Your task to perform on an android device: Open network settings Image 0: 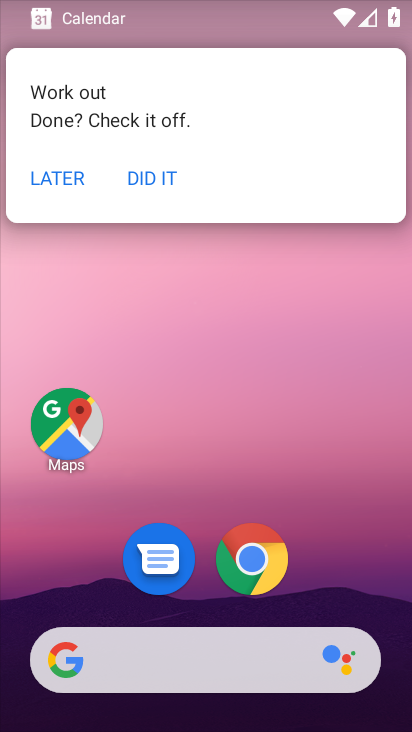
Step 0: drag from (387, 589) to (411, 173)
Your task to perform on an android device: Open network settings Image 1: 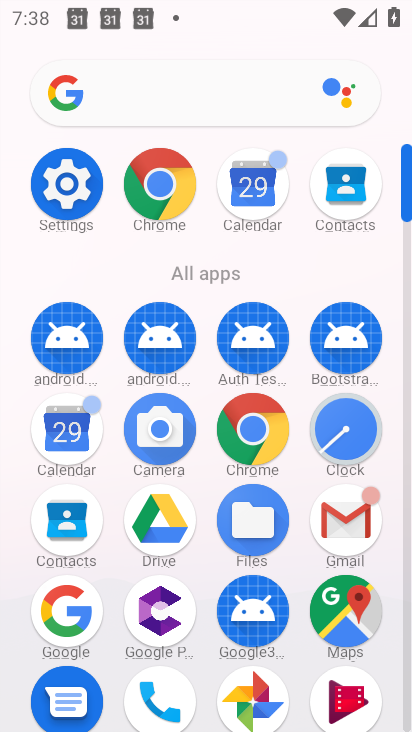
Step 1: click (53, 194)
Your task to perform on an android device: Open network settings Image 2: 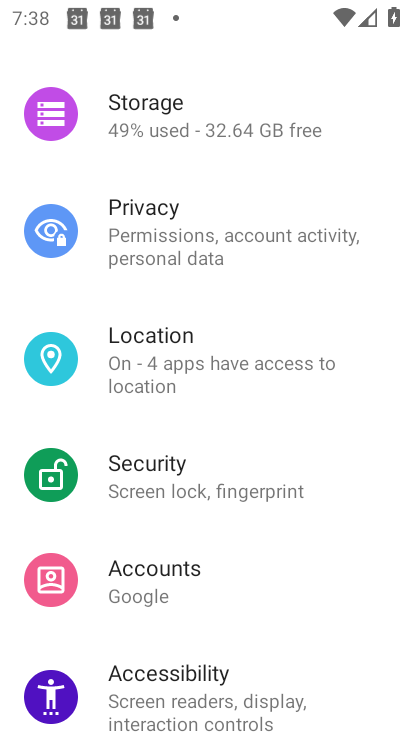
Step 2: drag from (289, 583) to (282, 458)
Your task to perform on an android device: Open network settings Image 3: 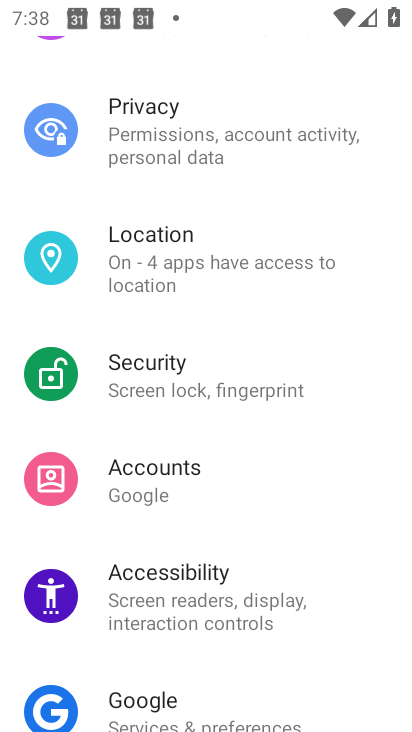
Step 3: drag from (343, 623) to (350, 455)
Your task to perform on an android device: Open network settings Image 4: 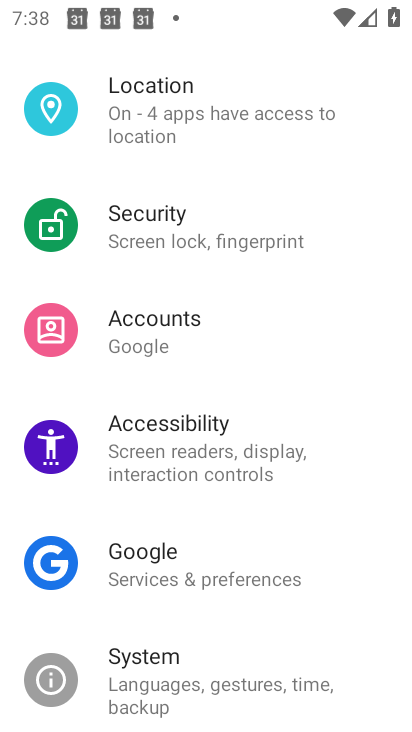
Step 4: drag from (340, 366) to (344, 460)
Your task to perform on an android device: Open network settings Image 5: 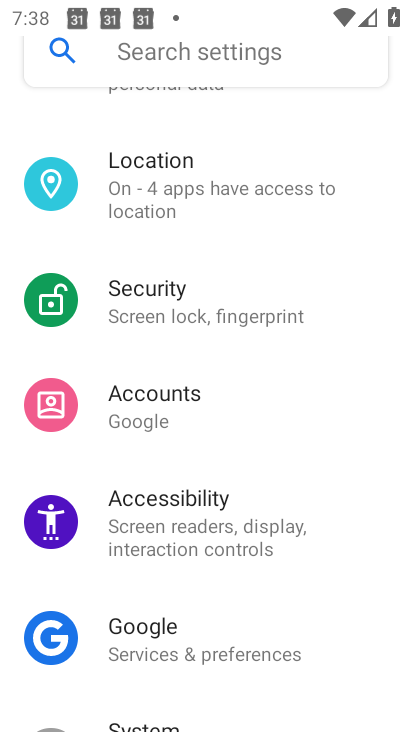
Step 5: drag from (351, 328) to (344, 419)
Your task to perform on an android device: Open network settings Image 6: 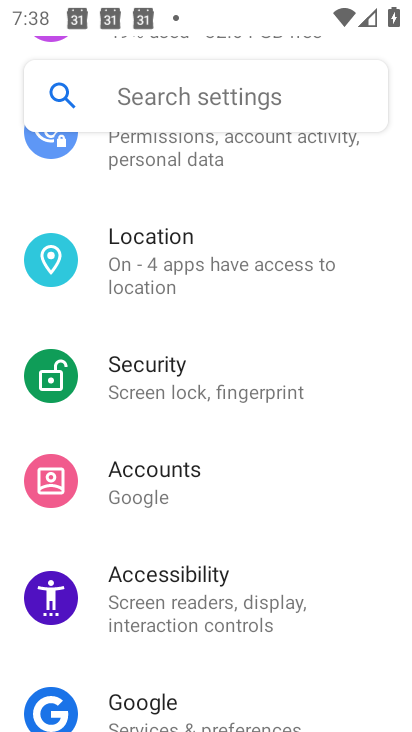
Step 6: drag from (346, 308) to (336, 426)
Your task to perform on an android device: Open network settings Image 7: 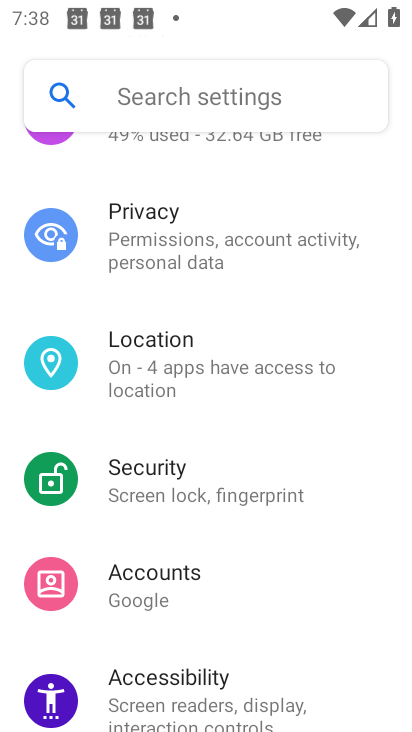
Step 7: drag from (356, 300) to (357, 412)
Your task to perform on an android device: Open network settings Image 8: 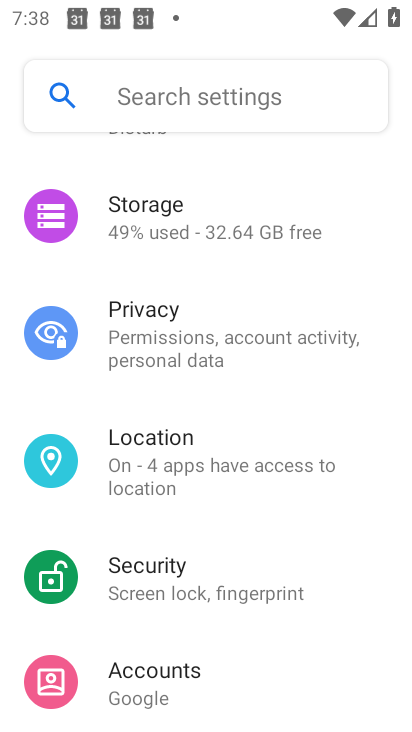
Step 8: drag from (379, 273) to (365, 387)
Your task to perform on an android device: Open network settings Image 9: 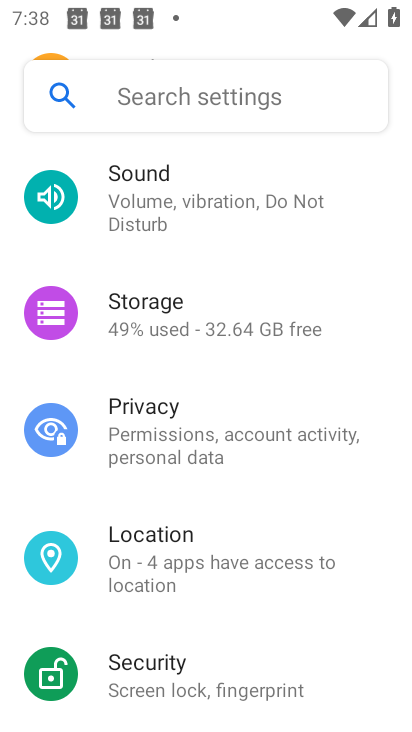
Step 9: drag from (374, 265) to (370, 387)
Your task to perform on an android device: Open network settings Image 10: 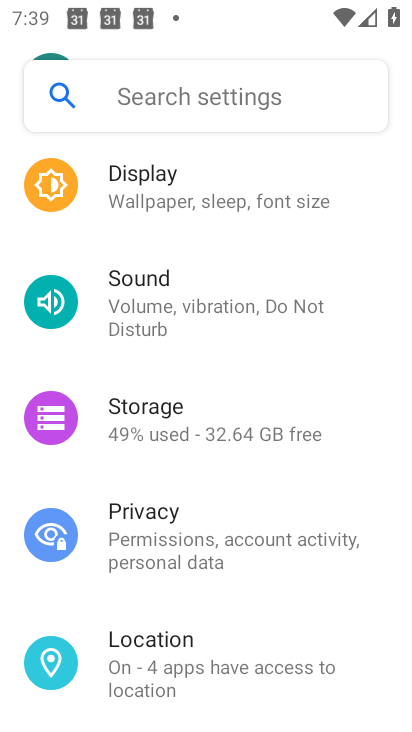
Step 10: drag from (361, 271) to (366, 379)
Your task to perform on an android device: Open network settings Image 11: 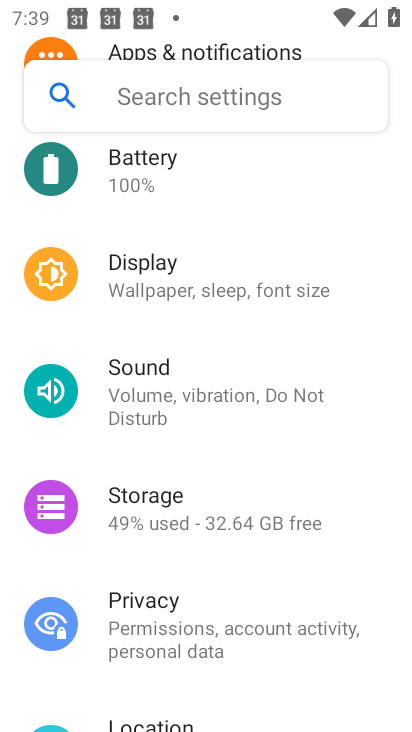
Step 11: drag from (370, 325) to (369, 412)
Your task to perform on an android device: Open network settings Image 12: 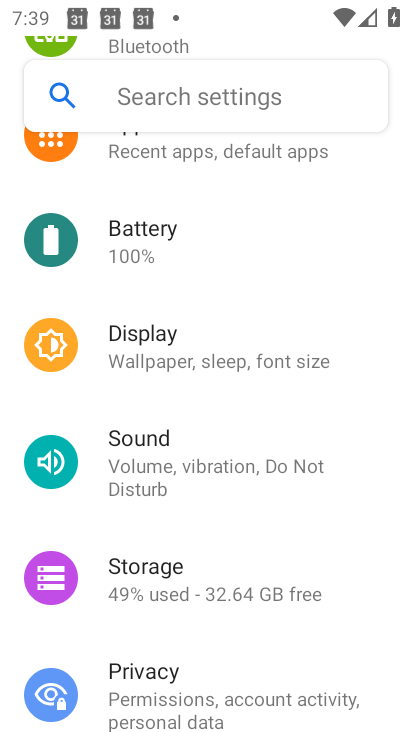
Step 12: drag from (377, 277) to (378, 430)
Your task to perform on an android device: Open network settings Image 13: 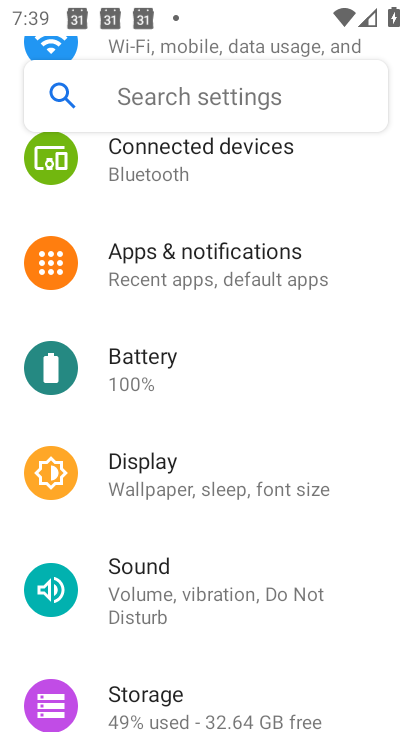
Step 13: drag from (356, 258) to (360, 389)
Your task to perform on an android device: Open network settings Image 14: 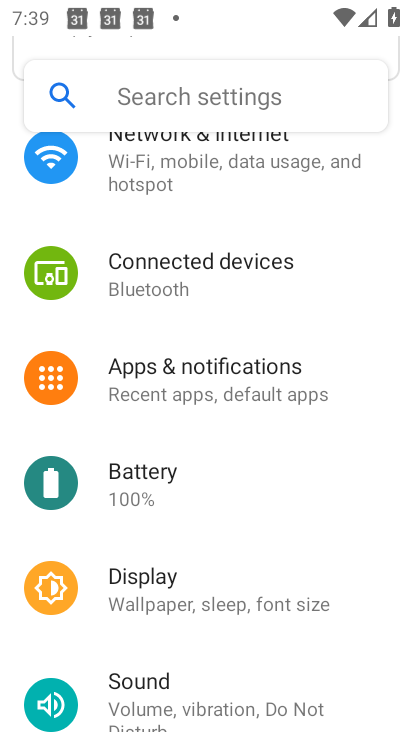
Step 14: drag from (361, 223) to (351, 371)
Your task to perform on an android device: Open network settings Image 15: 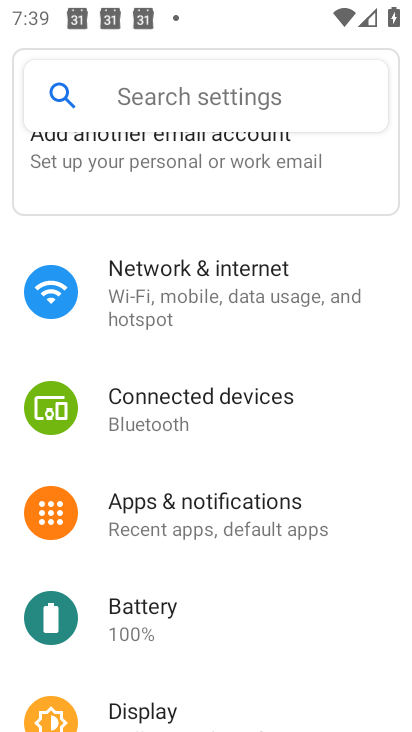
Step 15: click (248, 289)
Your task to perform on an android device: Open network settings Image 16: 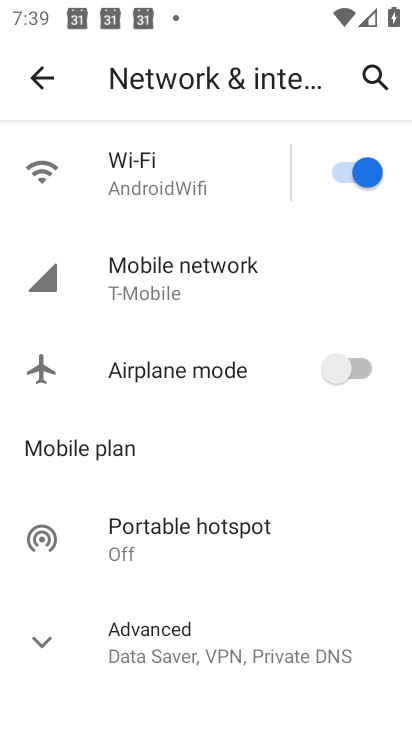
Step 16: click (254, 284)
Your task to perform on an android device: Open network settings Image 17: 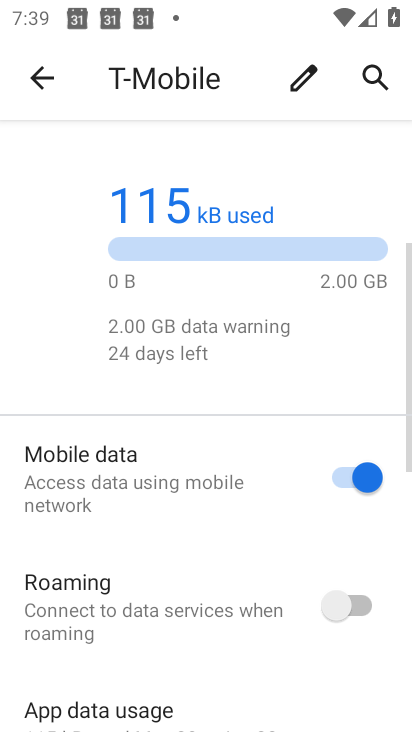
Step 17: drag from (256, 533) to (275, 415)
Your task to perform on an android device: Open network settings Image 18: 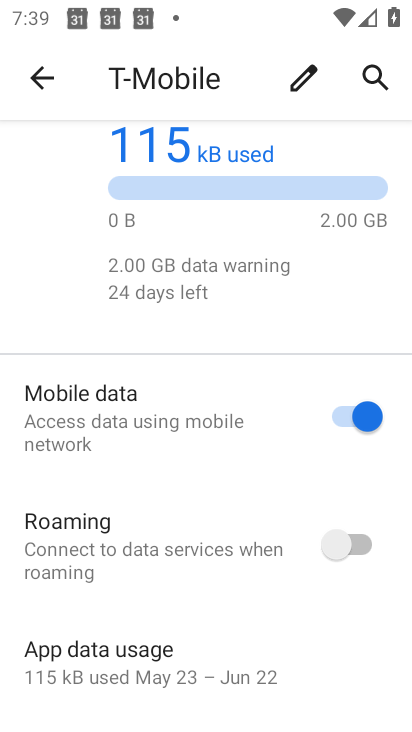
Step 18: drag from (282, 590) to (302, 487)
Your task to perform on an android device: Open network settings Image 19: 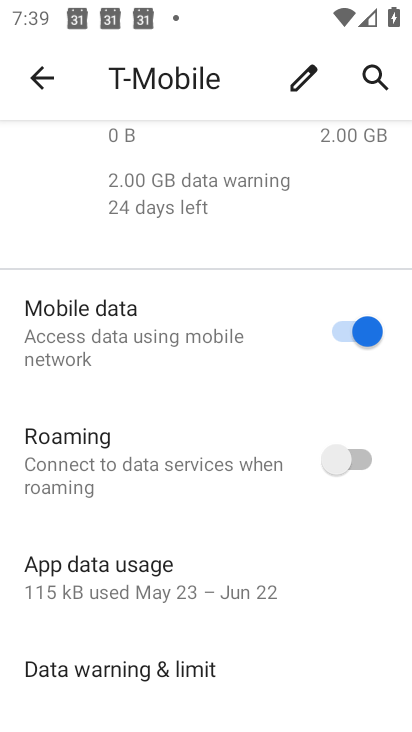
Step 19: drag from (304, 624) to (321, 518)
Your task to perform on an android device: Open network settings Image 20: 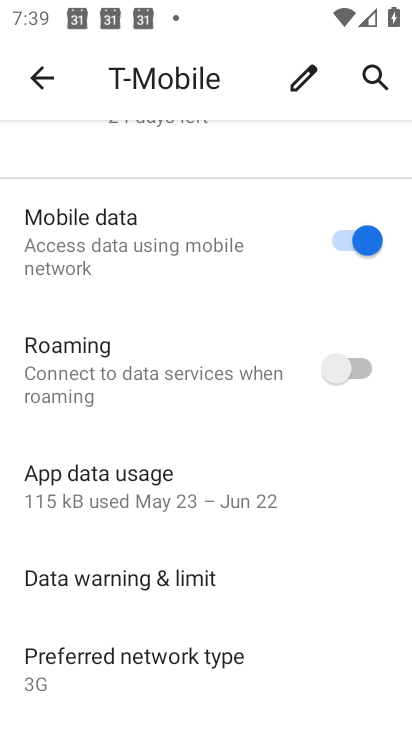
Step 20: drag from (309, 646) to (299, 444)
Your task to perform on an android device: Open network settings Image 21: 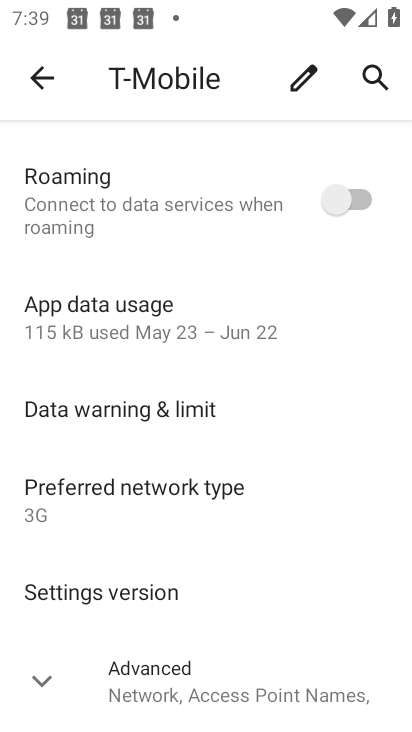
Step 21: click (264, 701)
Your task to perform on an android device: Open network settings Image 22: 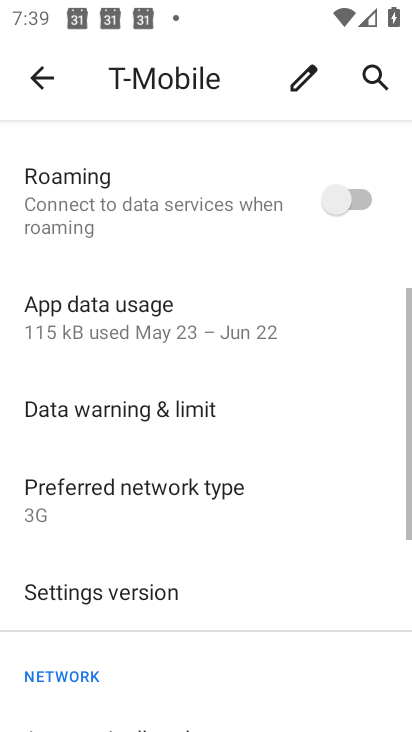
Step 22: task complete